Your task to perform on an android device: Do I have any events today? Image 0: 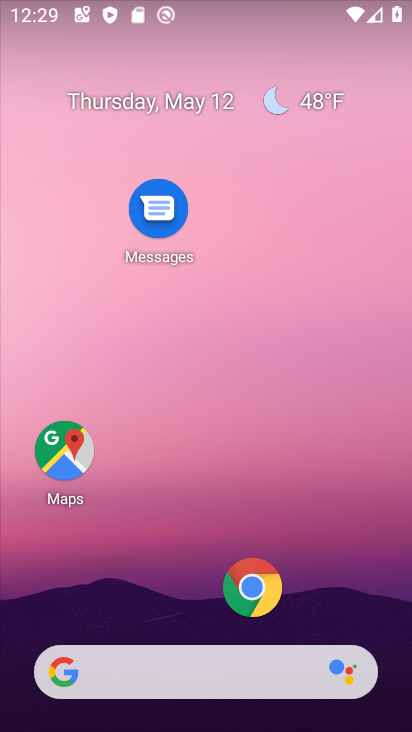
Step 0: drag from (161, 624) to (240, 719)
Your task to perform on an android device: Do I have any events today? Image 1: 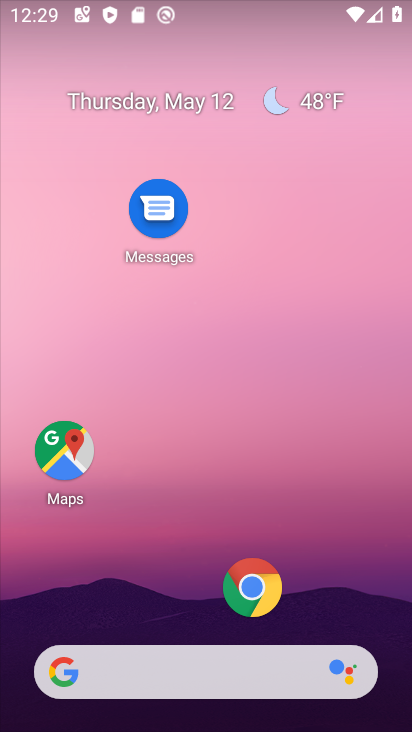
Step 1: drag from (200, 639) to (155, 54)
Your task to perform on an android device: Do I have any events today? Image 2: 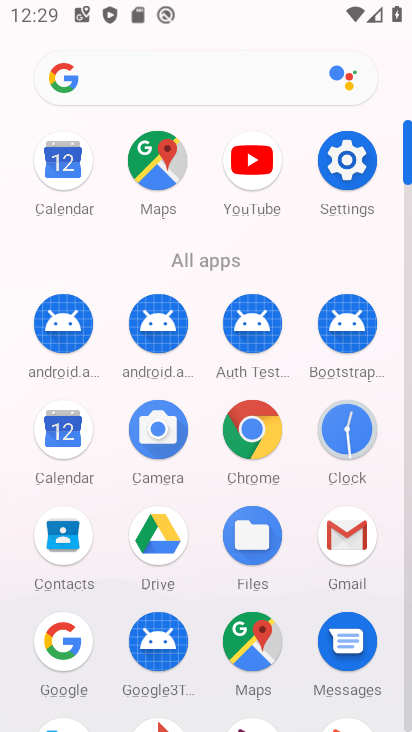
Step 2: click (69, 442)
Your task to perform on an android device: Do I have any events today? Image 3: 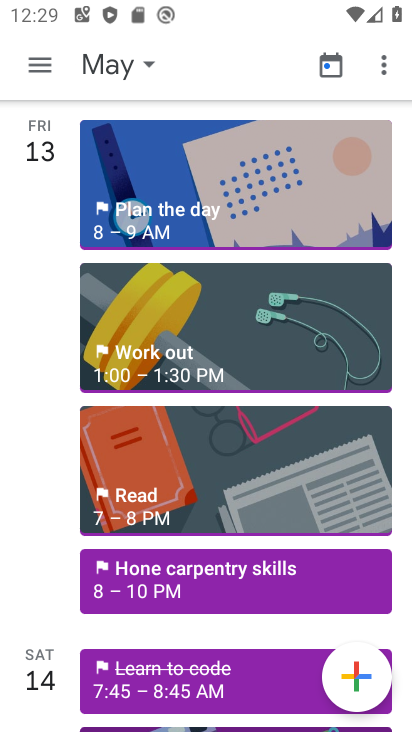
Step 3: click (40, 63)
Your task to perform on an android device: Do I have any events today? Image 4: 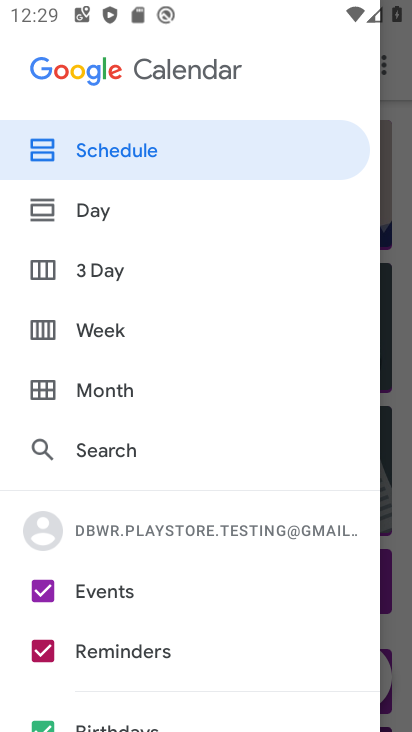
Step 4: click (103, 329)
Your task to perform on an android device: Do I have any events today? Image 5: 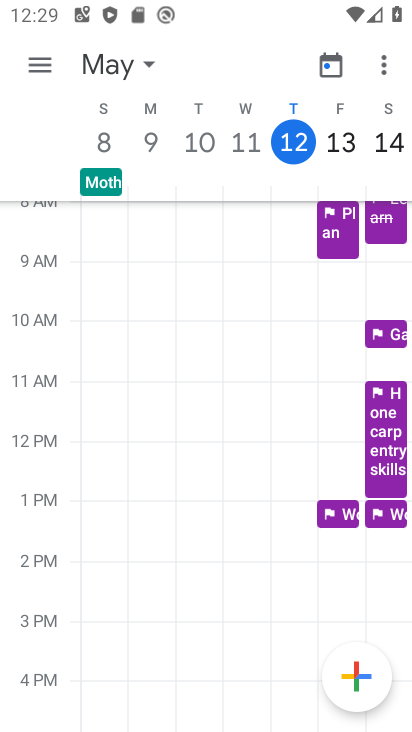
Step 5: click (293, 133)
Your task to perform on an android device: Do I have any events today? Image 6: 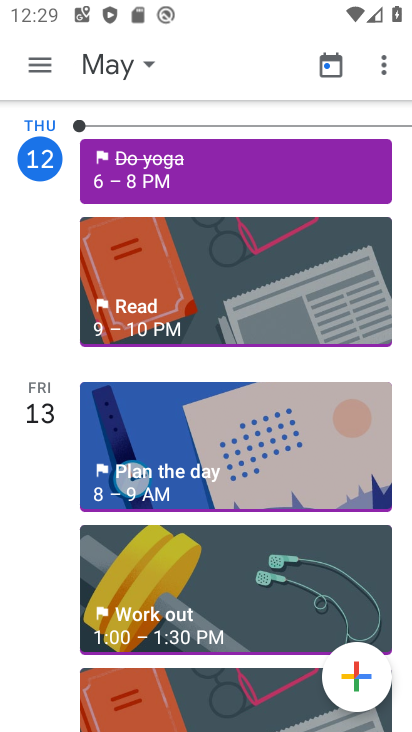
Step 6: task complete